Your task to perform on an android device: Go to eBay Image 0: 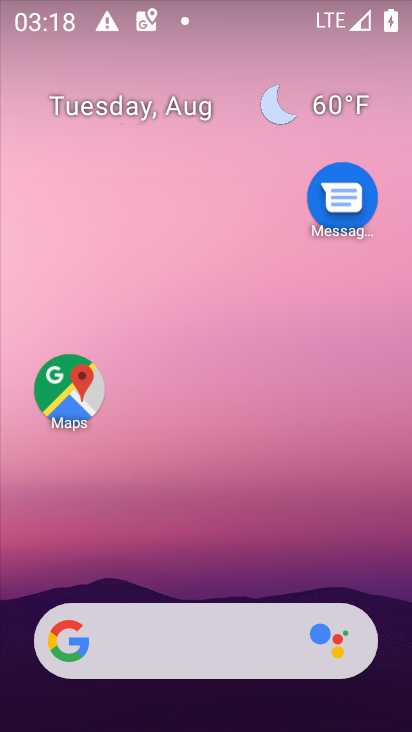
Step 0: click (237, 642)
Your task to perform on an android device: Go to eBay Image 1: 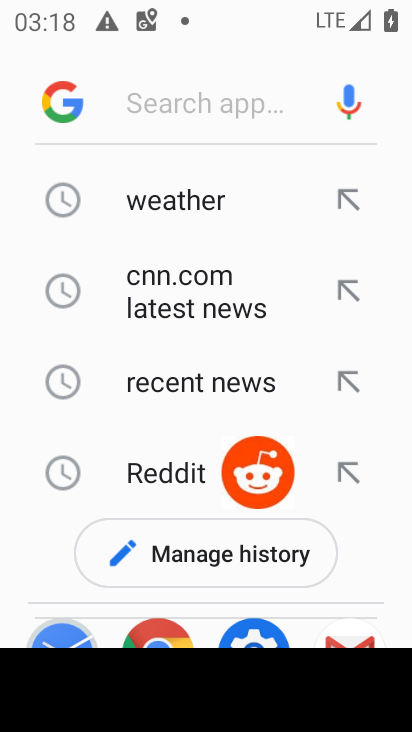
Step 1: type "ebay.com"
Your task to perform on an android device: Go to eBay Image 2: 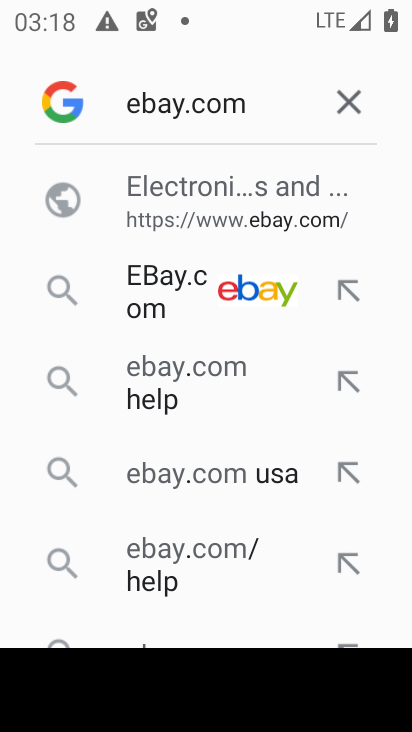
Step 2: click (171, 188)
Your task to perform on an android device: Go to eBay Image 3: 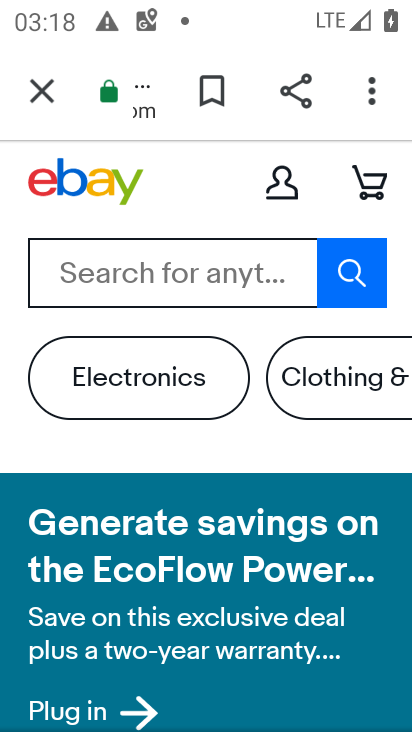
Step 3: task complete